Your task to perform on an android device: What's on my calendar tomorrow? Image 0: 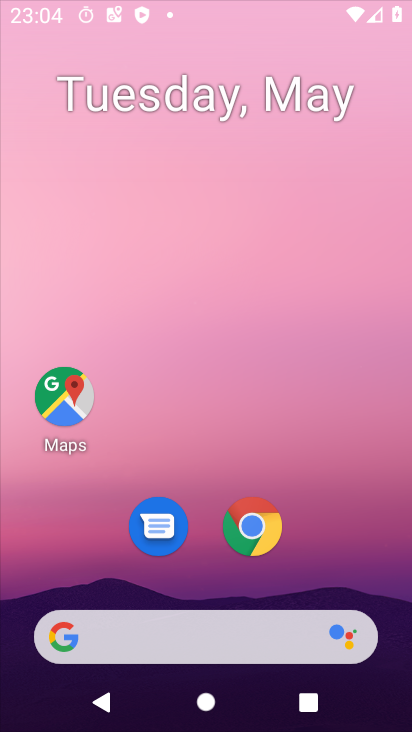
Step 0: click (215, 126)
Your task to perform on an android device: What's on my calendar tomorrow? Image 1: 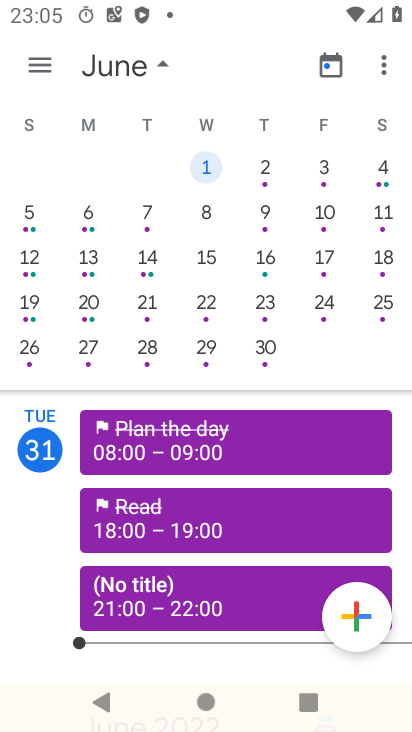
Step 1: click (254, 168)
Your task to perform on an android device: What's on my calendar tomorrow? Image 2: 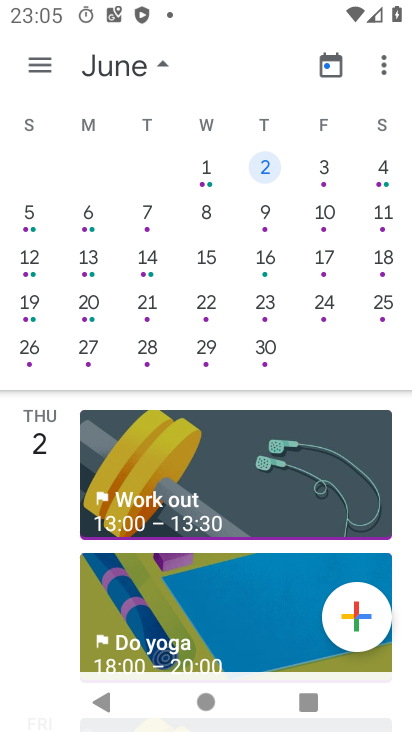
Step 2: task complete